Your task to perform on an android device: Go to network settings Image 0: 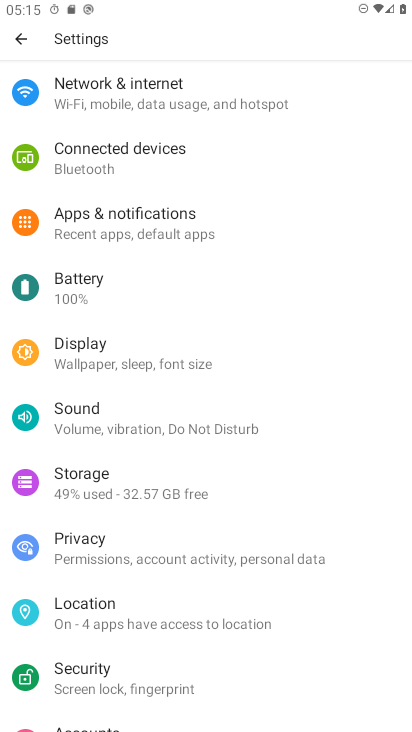
Step 0: press home button
Your task to perform on an android device: Go to network settings Image 1: 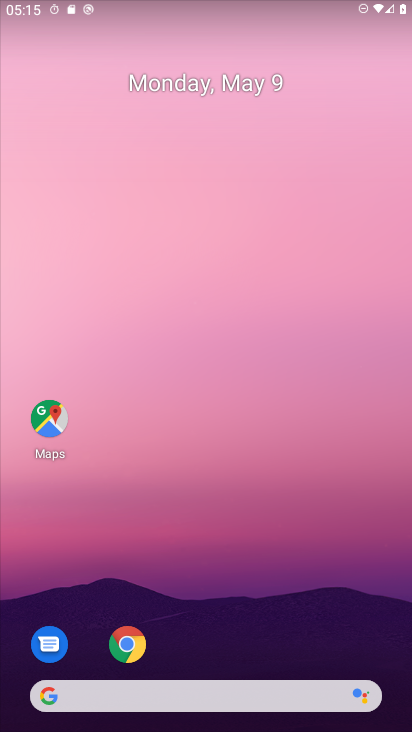
Step 1: drag from (220, 616) to (144, 138)
Your task to perform on an android device: Go to network settings Image 2: 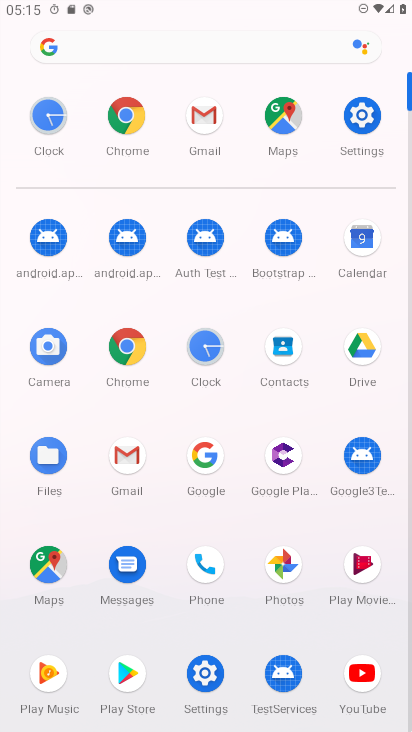
Step 2: click (363, 116)
Your task to perform on an android device: Go to network settings Image 3: 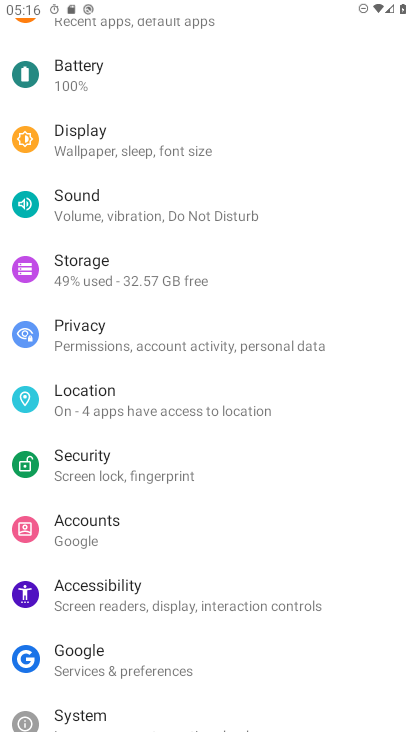
Step 3: drag from (200, 129) to (269, 423)
Your task to perform on an android device: Go to network settings Image 4: 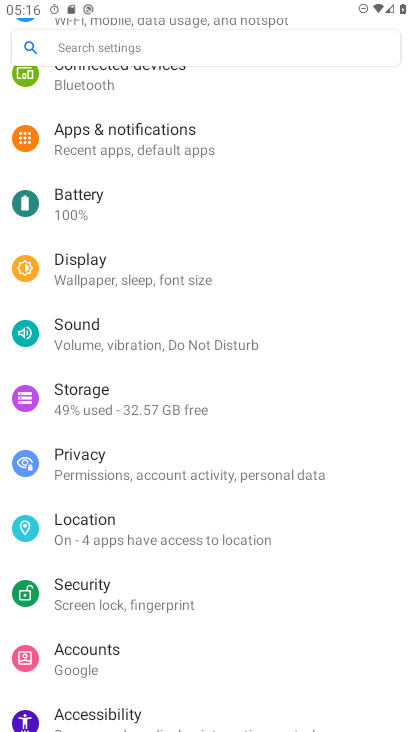
Step 4: drag from (218, 204) to (226, 485)
Your task to perform on an android device: Go to network settings Image 5: 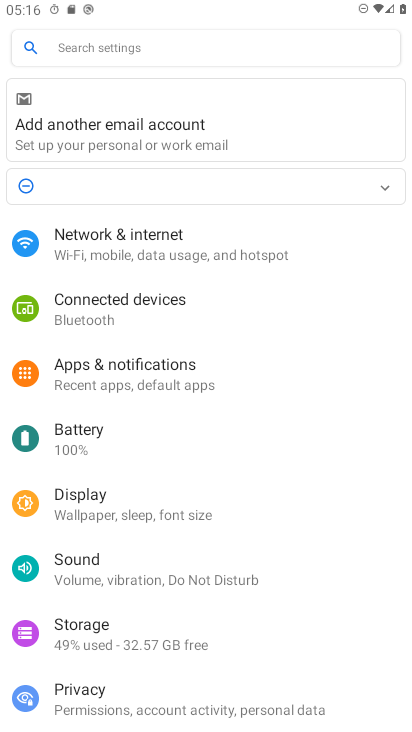
Step 5: click (121, 236)
Your task to perform on an android device: Go to network settings Image 6: 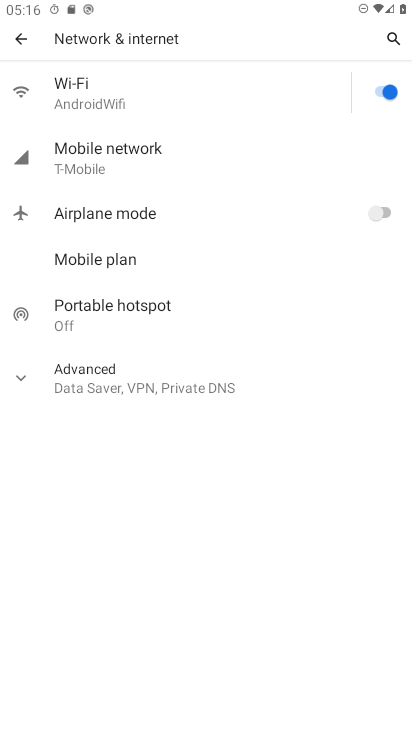
Step 6: click (87, 156)
Your task to perform on an android device: Go to network settings Image 7: 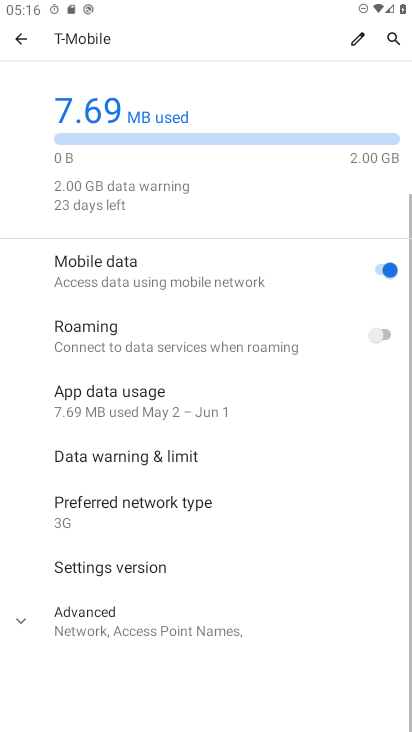
Step 7: task complete